Your task to perform on an android device: turn off sleep mode Image 0: 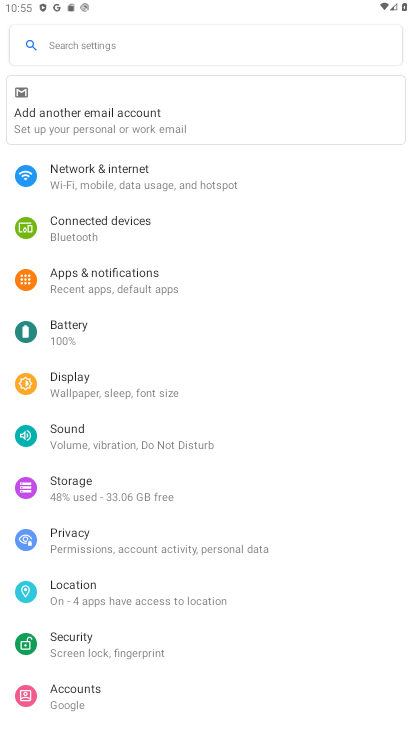
Step 0: click (81, 51)
Your task to perform on an android device: turn off sleep mode Image 1: 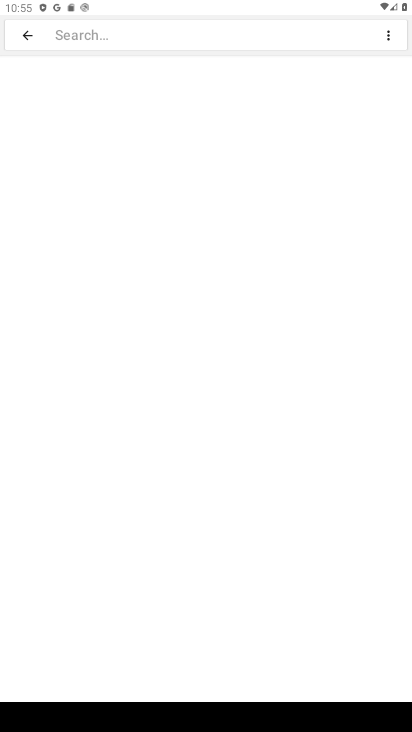
Step 1: click (389, 713)
Your task to perform on an android device: turn off sleep mode Image 2: 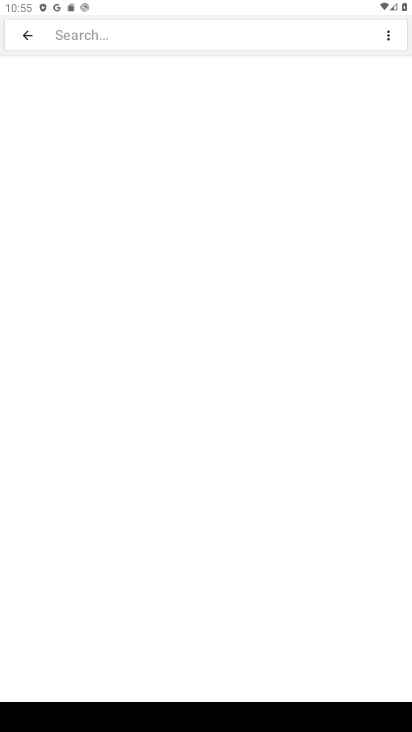
Step 2: drag from (369, 709) to (319, 562)
Your task to perform on an android device: turn off sleep mode Image 3: 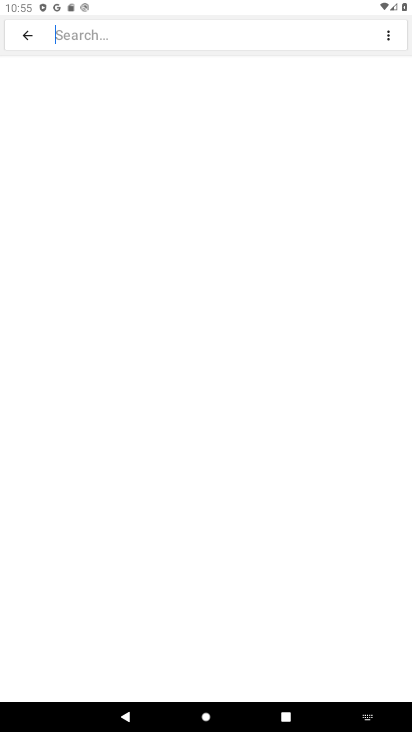
Step 3: click (370, 721)
Your task to perform on an android device: turn off sleep mode Image 4: 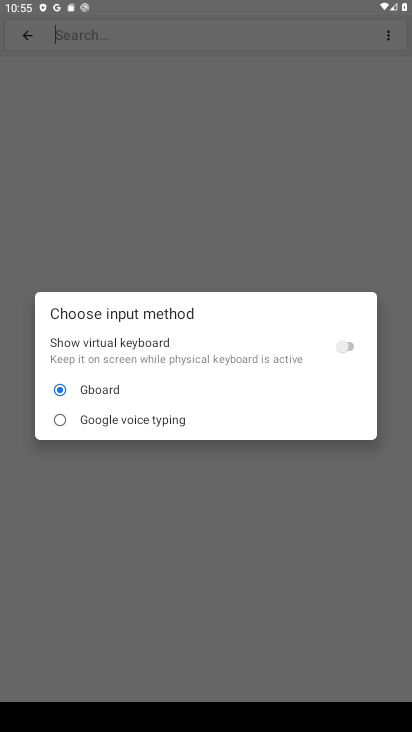
Step 4: click (338, 343)
Your task to perform on an android device: turn off sleep mode Image 5: 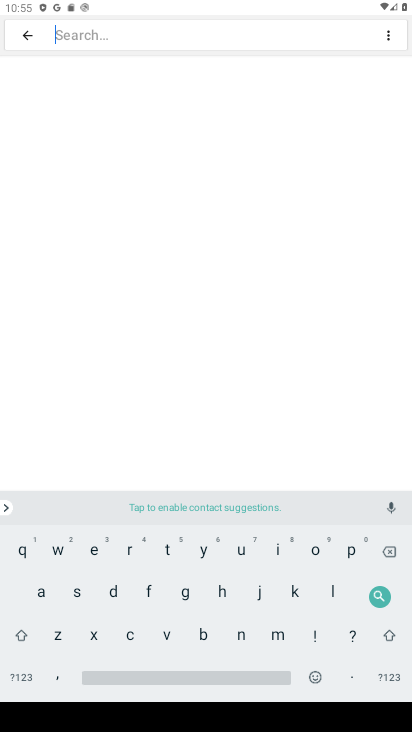
Step 5: click (70, 597)
Your task to perform on an android device: turn off sleep mode Image 6: 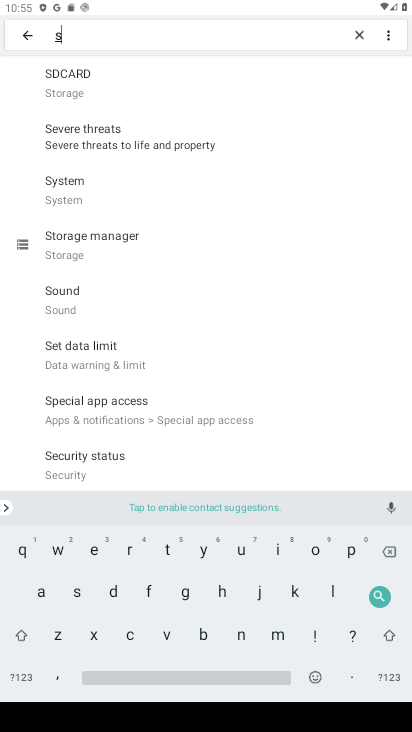
Step 6: click (335, 594)
Your task to perform on an android device: turn off sleep mode Image 7: 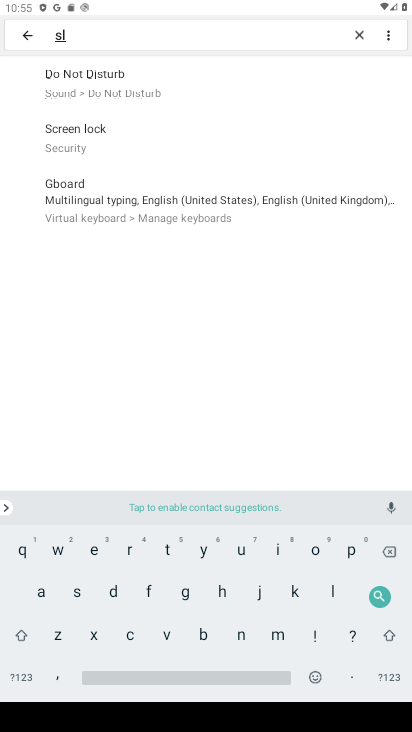
Step 7: click (102, 91)
Your task to perform on an android device: turn off sleep mode Image 8: 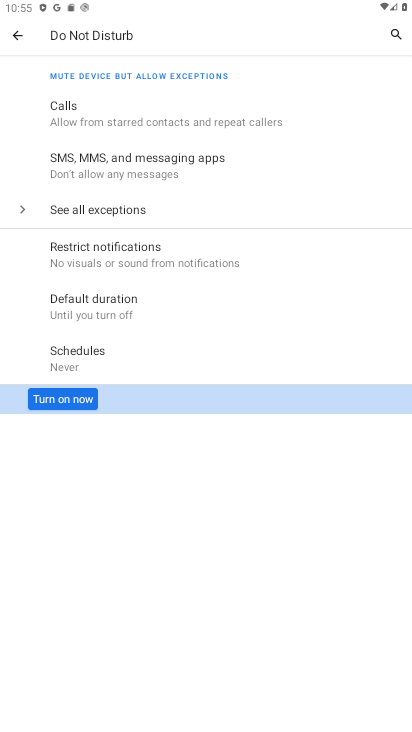
Step 8: click (74, 402)
Your task to perform on an android device: turn off sleep mode Image 9: 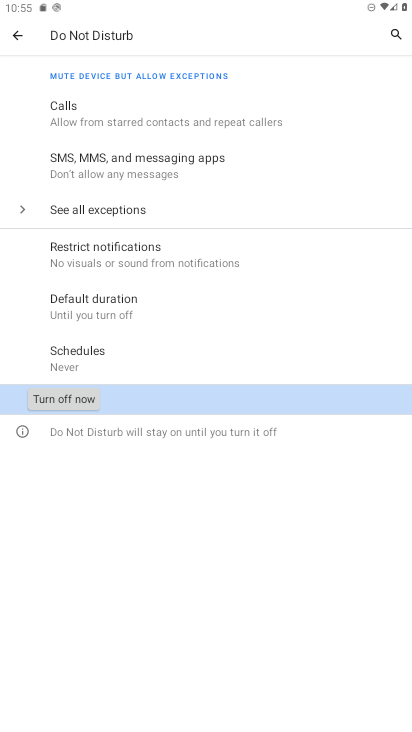
Step 9: click (85, 390)
Your task to perform on an android device: turn off sleep mode Image 10: 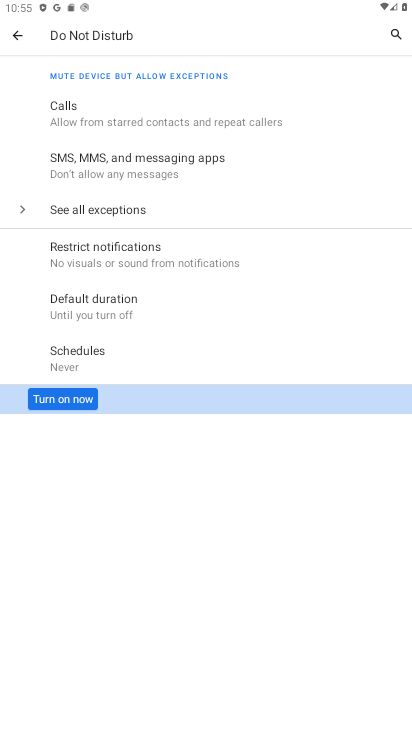
Step 10: task complete